Your task to perform on an android device: turn off javascript in the chrome app Image 0: 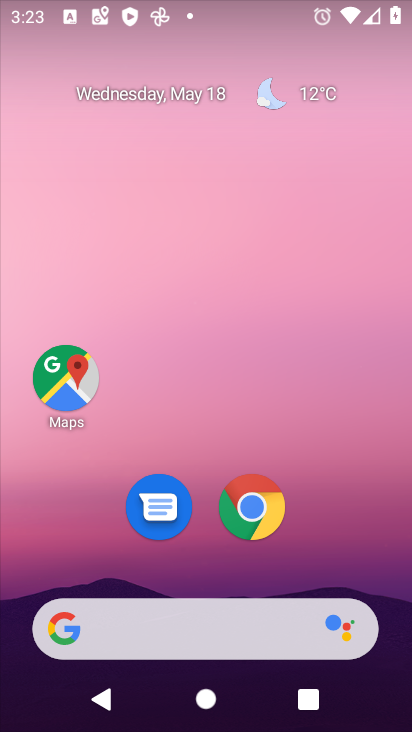
Step 0: click (250, 509)
Your task to perform on an android device: turn off javascript in the chrome app Image 1: 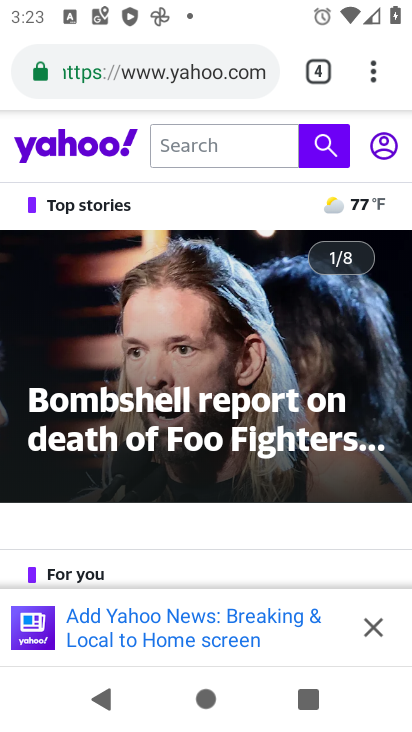
Step 1: click (370, 79)
Your task to perform on an android device: turn off javascript in the chrome app Image 2: 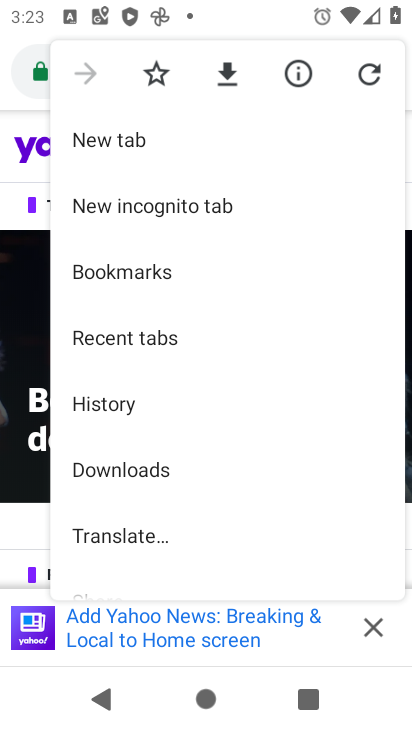
Step 2: drag from (208, 542) to (224, 183)
Your task to perform on an android device: turn off javascript in the chrome app Image 3: 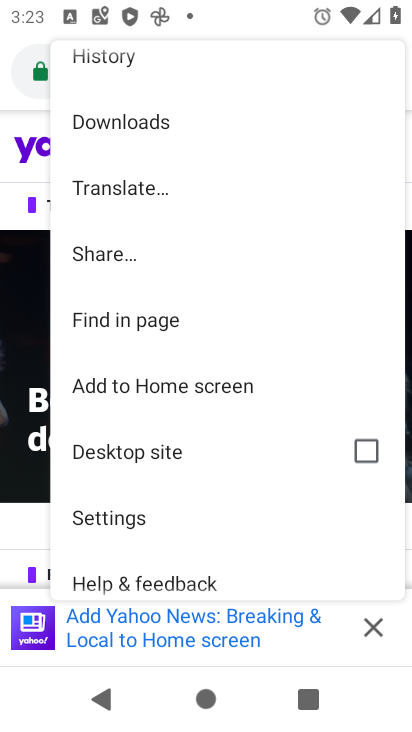
Step 3: click (95, 511)
Your task to perform on an android device: turn off javascript in the chrome app Image 4: 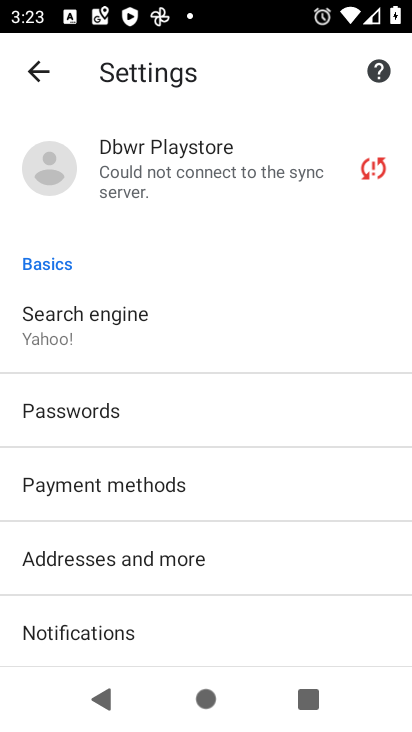
Step 4: drag from (230, 590) to (234, 276)
Your task to perform on an android device: turn off javascript in the chrome app Image 5: 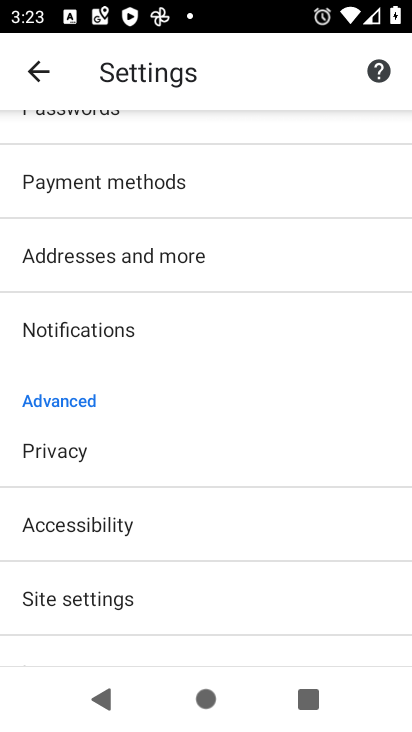
Step 5: click (95, 601)
Your task to perform on an android device: turn off javascript in the chrome app Image 6: 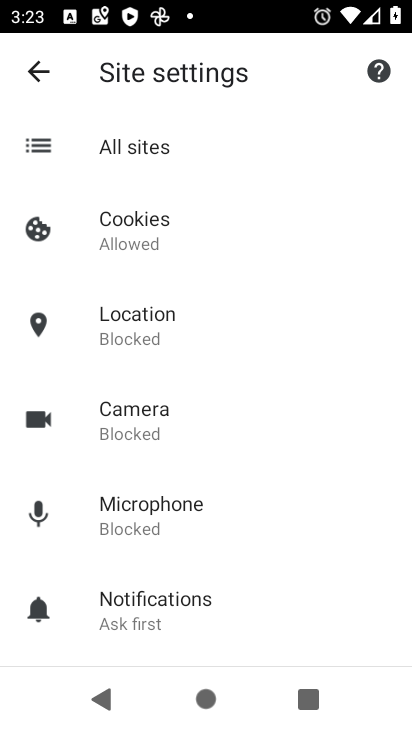
Step 6: drag from (270, 597) to (278, 255)
Your task to perform on an android device: turn off javascript in the chrome app Image 7: 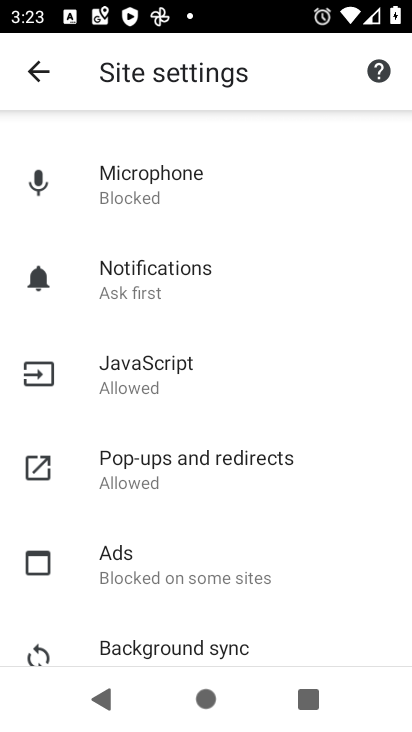
Step 7: click (120, 380)
Your task to perform on an android device: turn off javascript in the chrome app Image 8: 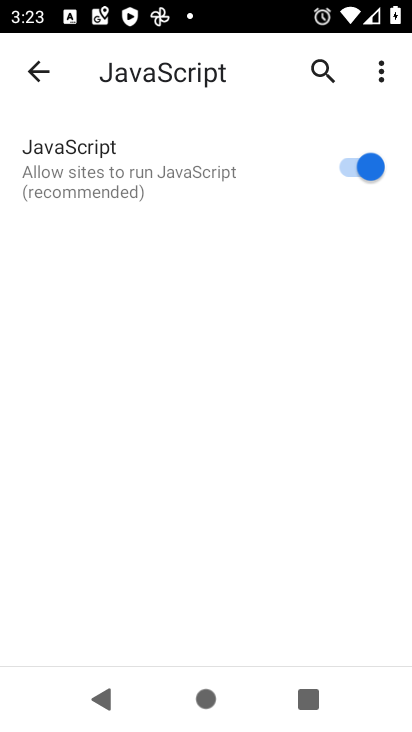
Step 8: click (347, 169)
Your task to perform on an android device: turn off javascript in the chrome app Image 9: 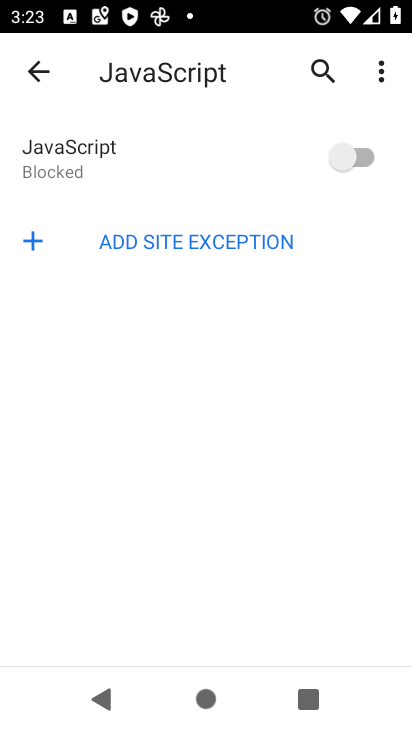
Step 9: task complete